Your task to perform on an android device: turn off translation in the chrome app Image 0: 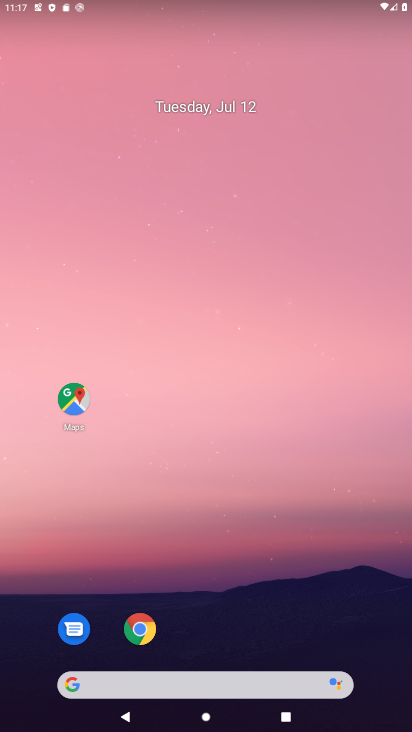
Step 0: press home button
Your task to perform on an android device: turn off translation in the chrome app Image 1: 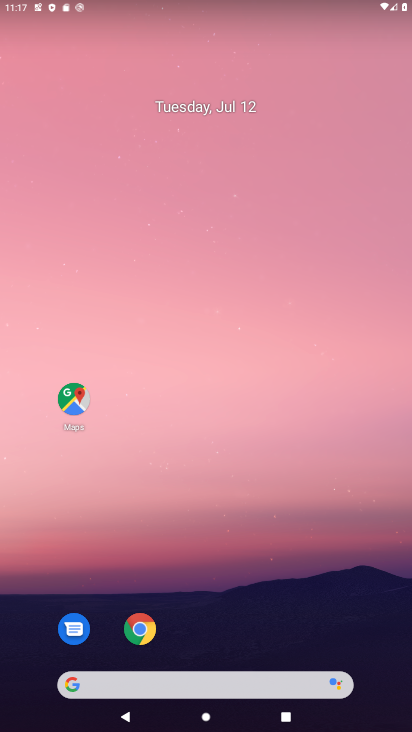
Step 1: click (136, 624)
Your task to perform on an android device: turn off translation in the chrome app Image 2: 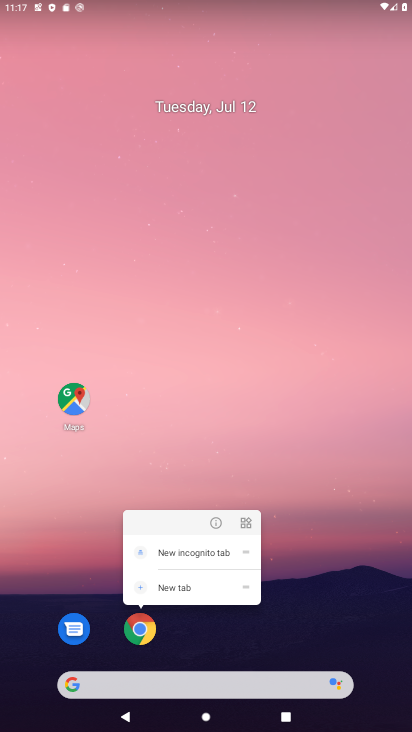
Step 2: click (136, 624)
Your task to perform on an android device: turn off translation in the chrome app Image 3: 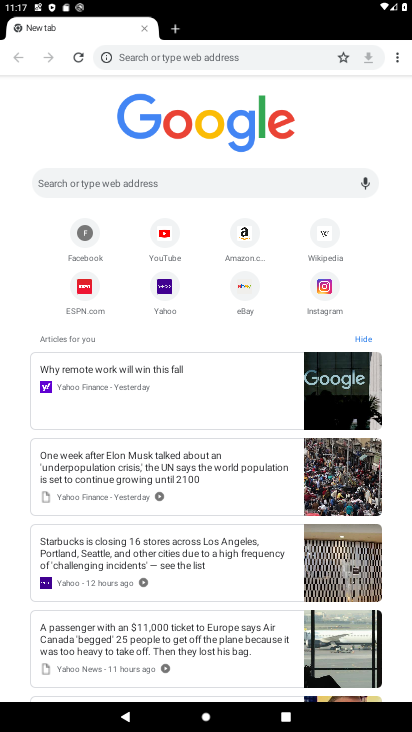
Step 3: click (395, 51)
Your task to perform on an android device: turn off translation in the chrome app Image 4: 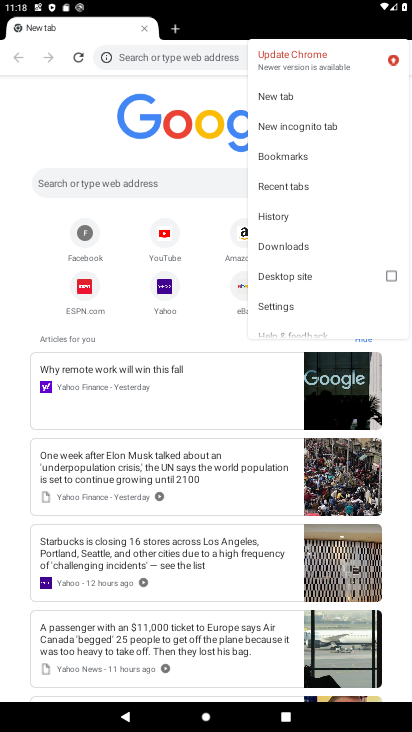
Step 4: click (298, 303)
Your task to perform on an android device: turn off translation in the chrome app Image 5: 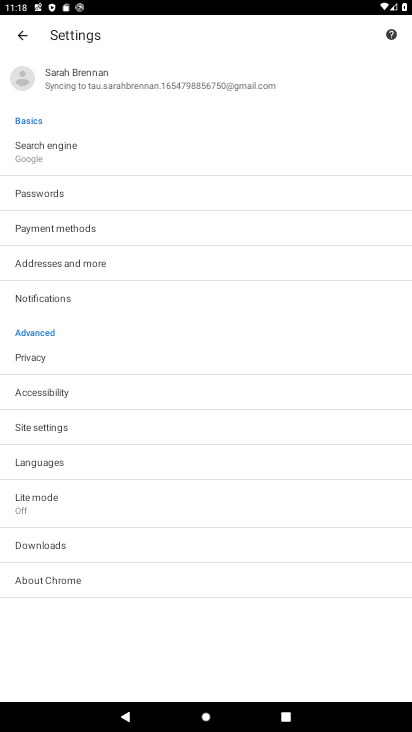
Step 5: click (73, 456)
Your task to perform on an android device: turn off translation in the chrome app Image 6: 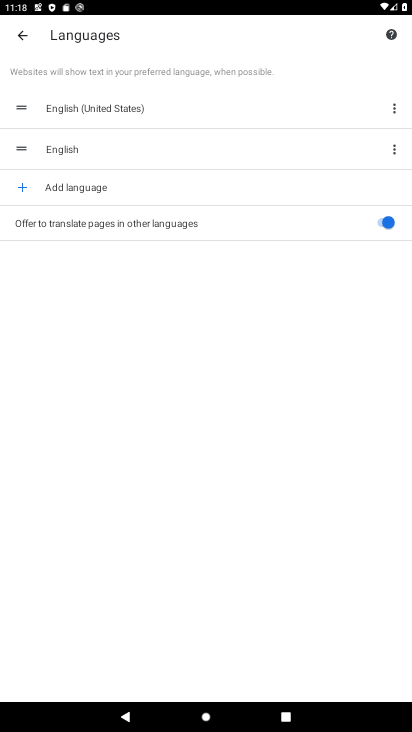
Step 6: click (379, 220)
Your task to perform on an android device: turn off translation in the chrome app Image 7: 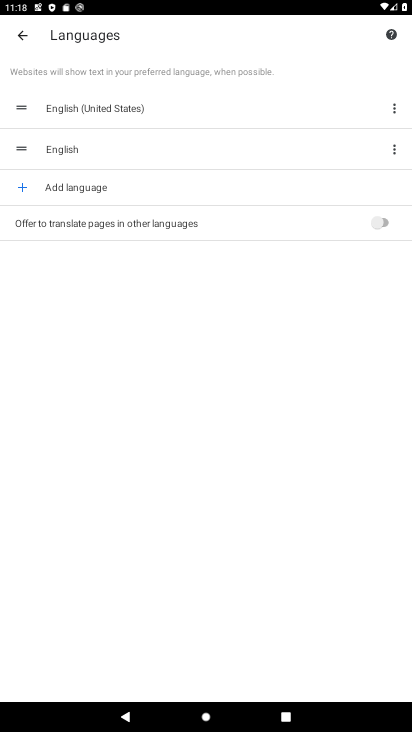
Step 7: task complete